Your task to perform on an android device: Open the calendar and show me this week's events? Image 0: 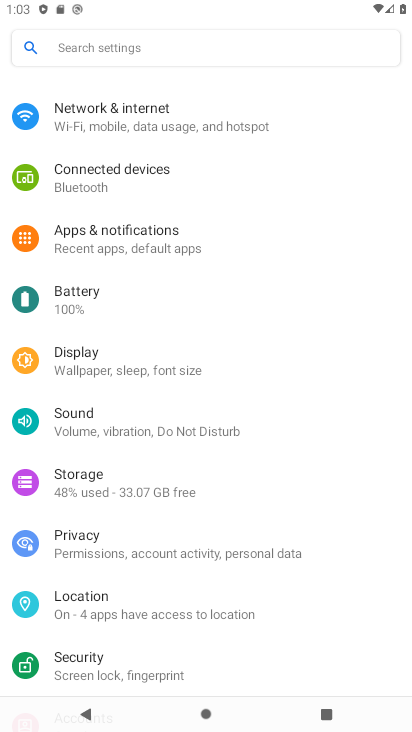
Step 0: drag from (295, 530) to (267, 306)
Your task to perform on an android device: Open the calendar and show me this week's events? Image 1: 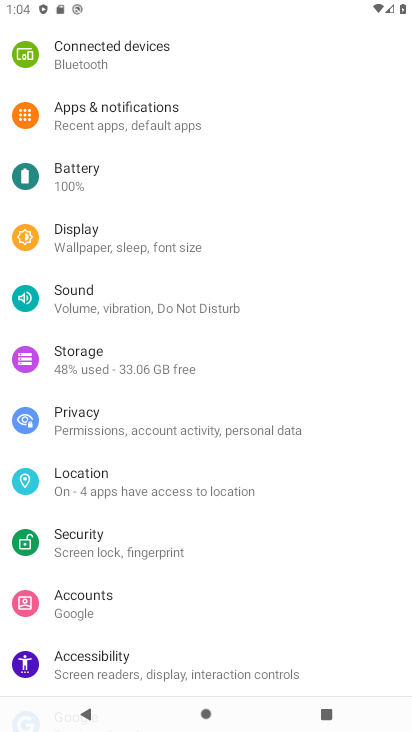
Step 1: press home button
Your task to perform on an android device: Open the calendar and show me this week's events? Image 2: 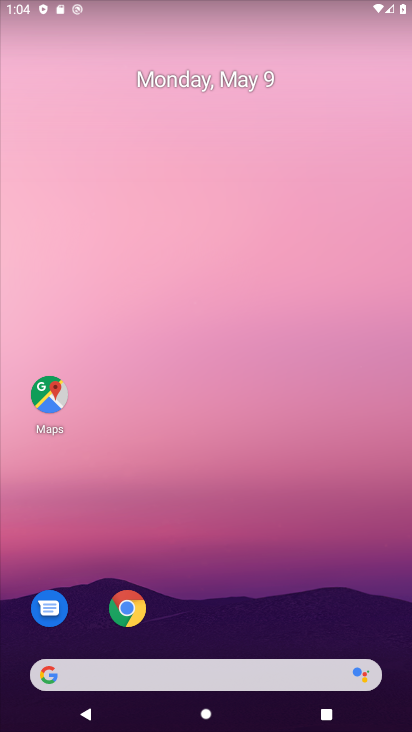
Step 2: drag from (316, 599) to (303, 69)
Your task to perform on an android device: Open the calendar and show me this week's events? Image 3: 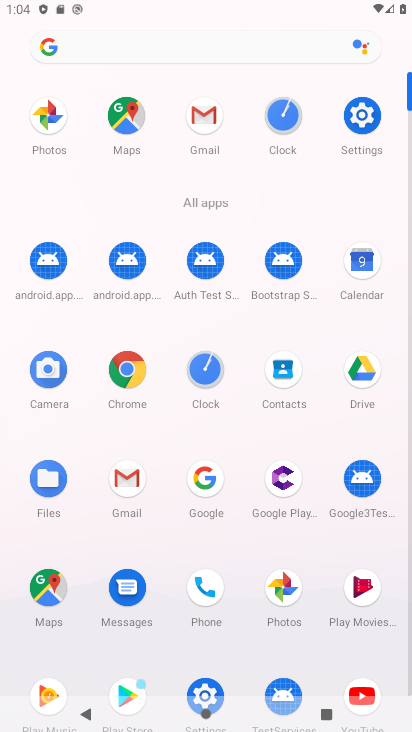
Step 3: click (361, 258)
Your task to perform on an android device: Open the calendar and show me this week's events? Image 4: 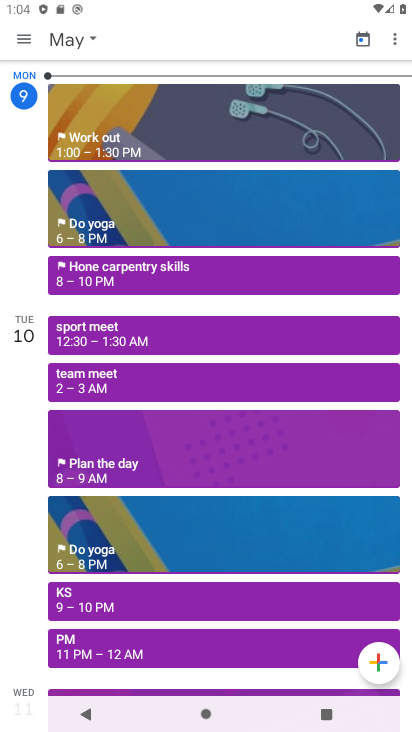
Step 4: click (71, 43)
Your task to perform on an android device: Open the calendar and show me this week's events? Image 5: 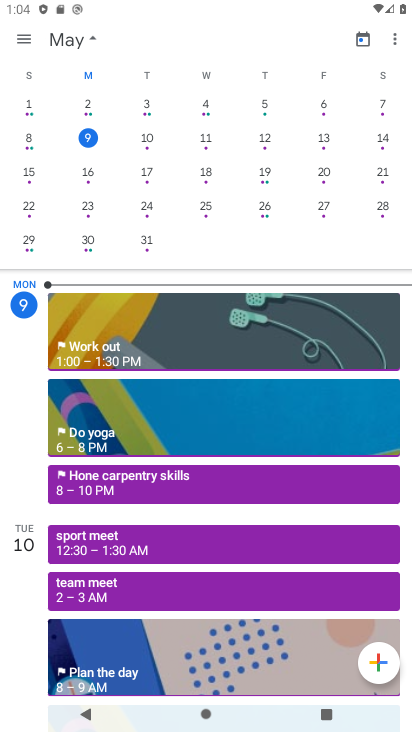
Step 5: click (90, 180)
Your task to perform on an android device: Open the calendar and show me this week's events? Image 6: 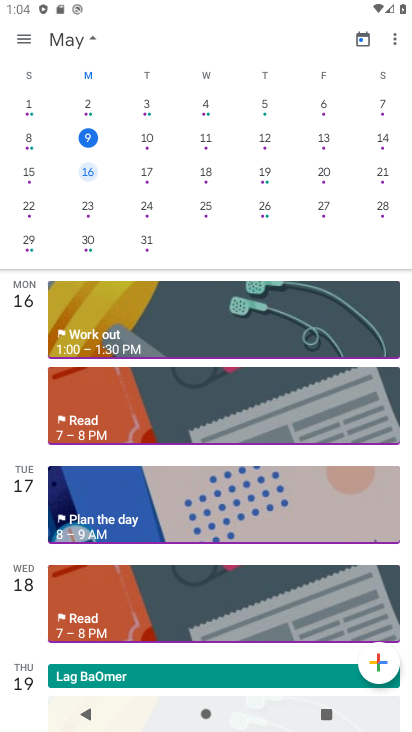
Step 6: task complete